Your task to perform on an android device: toggle notifications settings in the gmail app Image 0: 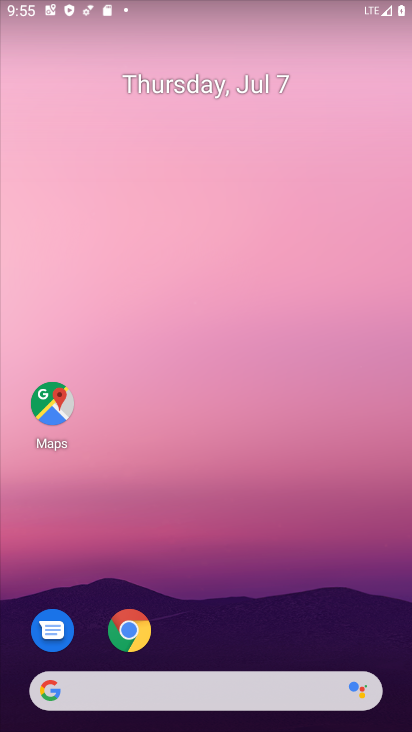
Step 0: drag from (178, 636) to (190, 186)
Your task to perform on an android device: toggle notifications settings in the gmail app Image 1: 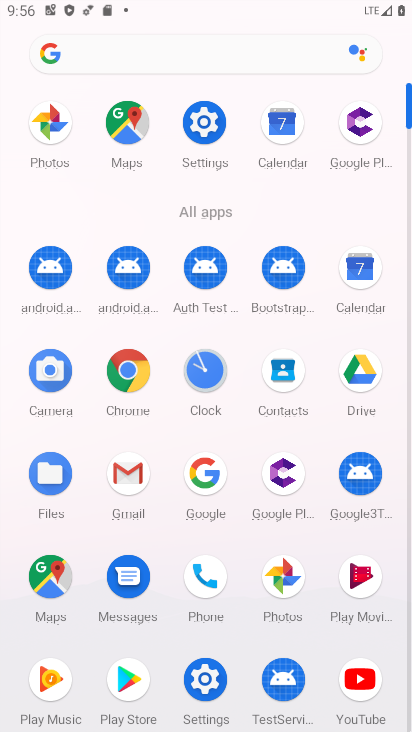
Step 1: click (119, 476)
Your task to perform on an android device: toggle notifications settings in the gmail app Image 2: 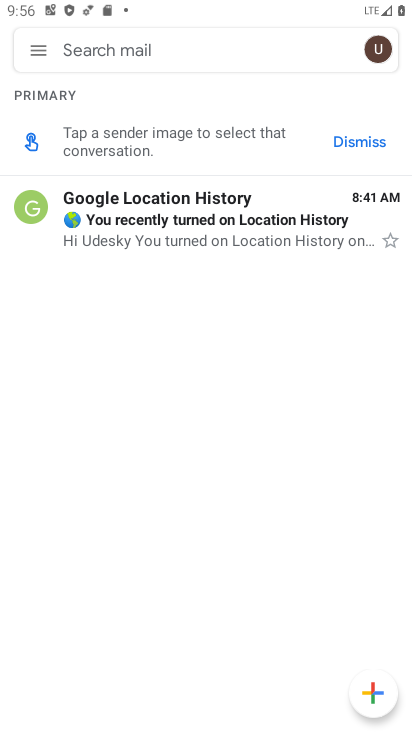
Step 2: drag from (161, 606) to (188, 263)
Your task to perform on an android device: toggle notifications settings in the gmail app Image 3: 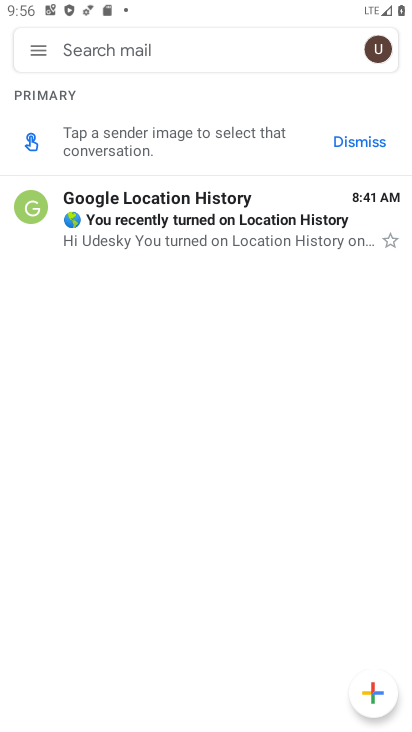
Step 3: click (41, 47)
Your task to perform on an android device: toggle notifications settings in the gmail app Image 4: 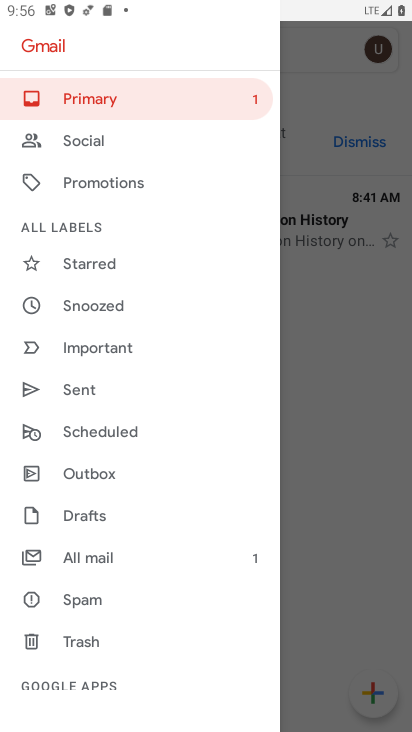
Step 4: drag from (92, 590) to (148, 173)
Your task to perform on an android device: toggle notifications settings in the gmail app Image 5: 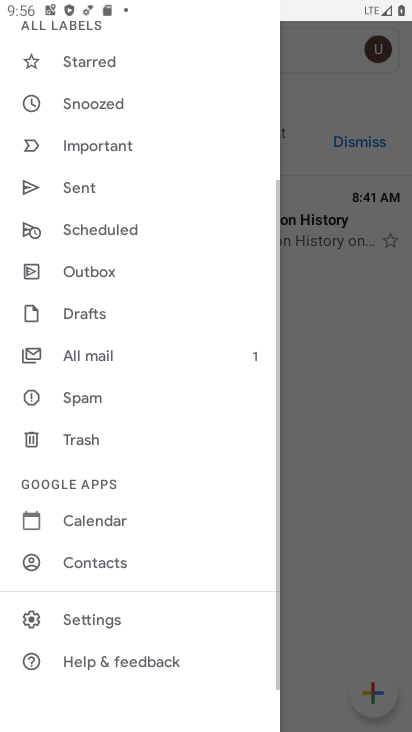
Step 5: click (93, 624)
Your task to perform on an android device: toggle notifications settings in the gmail app Image 6: 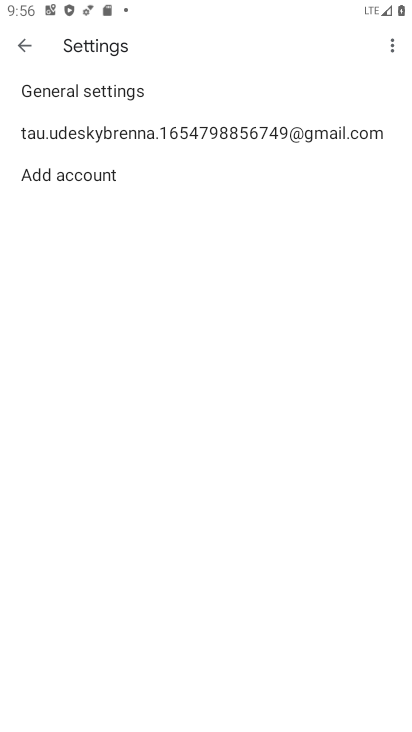
Step 6: drag from (102, 585) to (164, 165)
Your task to perform on an android device: toggle notifications settings in the gmail app Image 7: 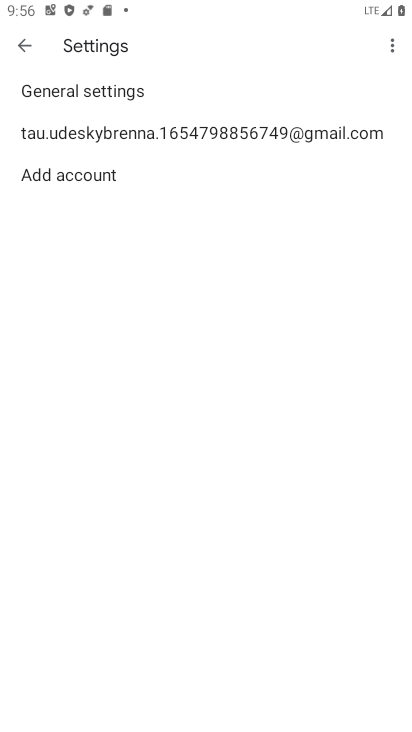
Step 7: click (182, 135)
Your task to perform on an android device: toggle notifications settings in the gmail app Image 8: 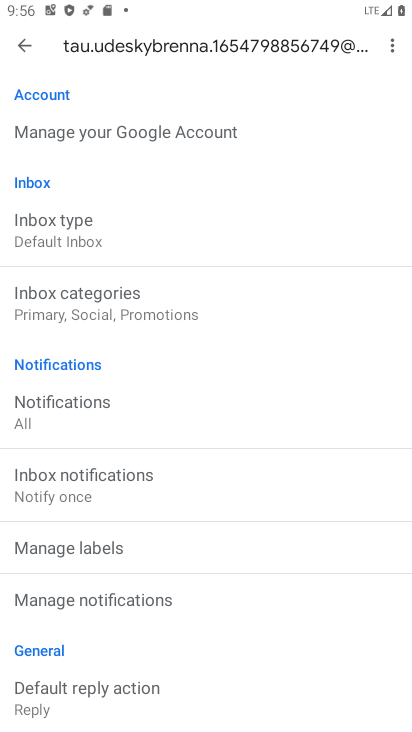
Step 8: click (94, 595)
Your task to perform on an android device: toggle notifications settings in the gmail app Image 9: 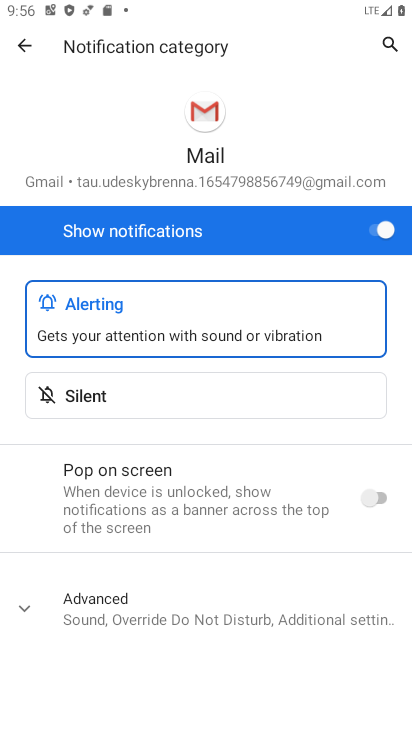
Step 9: drag from (177, 578) to (228, 136)
Your task to perform on an android device: toggle notifications settings in the gmail app Image 10: 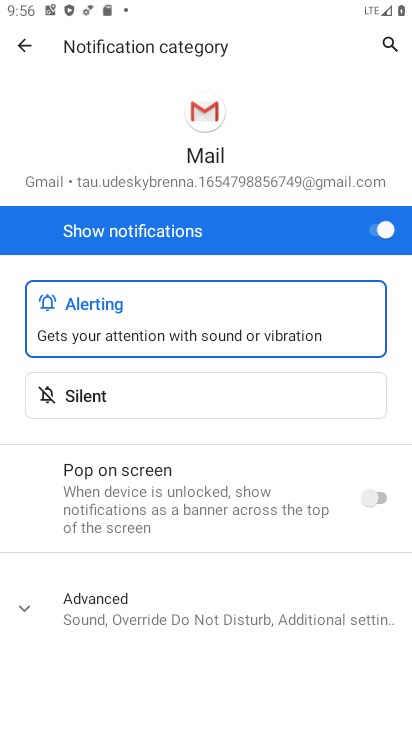
Step 10: click (130, 611)
Your task to perform on an android device: toggle notifications settings in the gmail app Image 11: 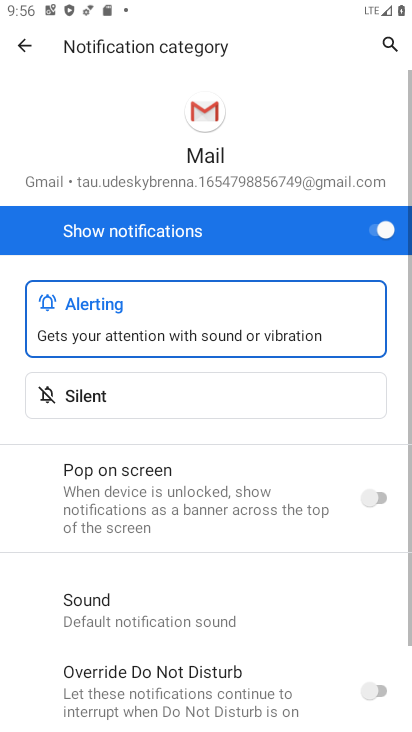
Step 11: drag from (153, 610) to (248, 165)
Your task to perform on an android device: toggle notifications settings in the gmail app Image 12: 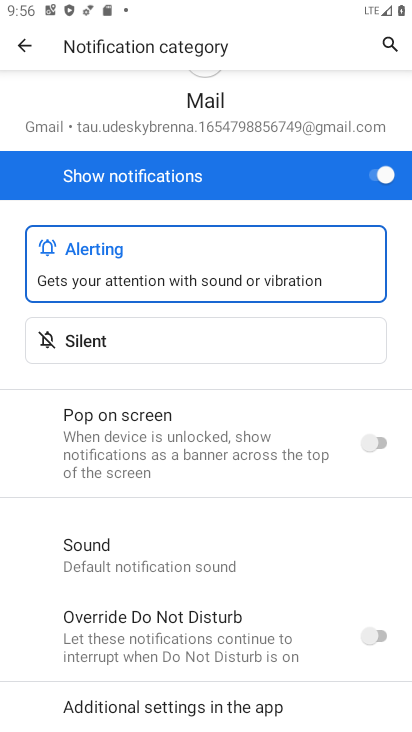
Step 12: drag from (165, 659) to (208, 261)
Your task to perform on an android device: toggle notifications settings in the gmail app Image 13: 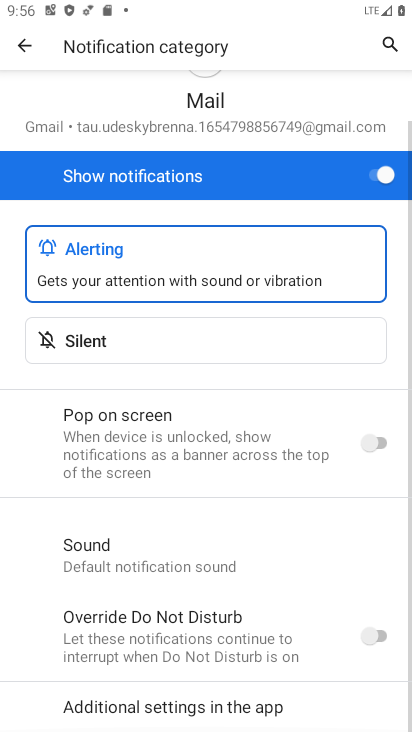
Step 13: drag from (250, 231) to (297, 676)
Your task to perform on an android device: toggle notifications settings in the gmail app Image 14: 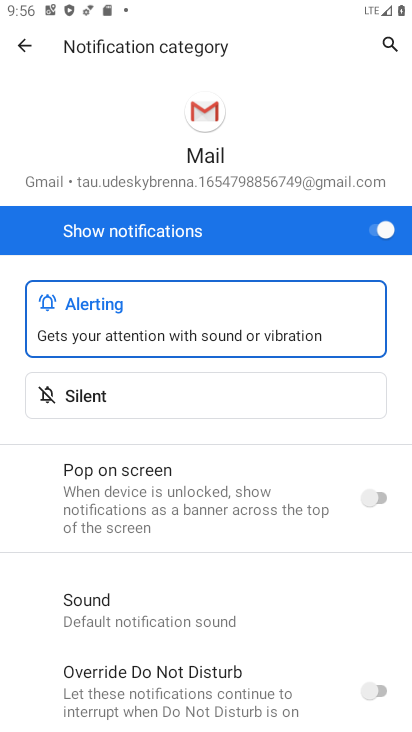
Step 14: click (363, 229)
Your task to perform on an android device: toggle notifications settings in the gmail app Image 15: 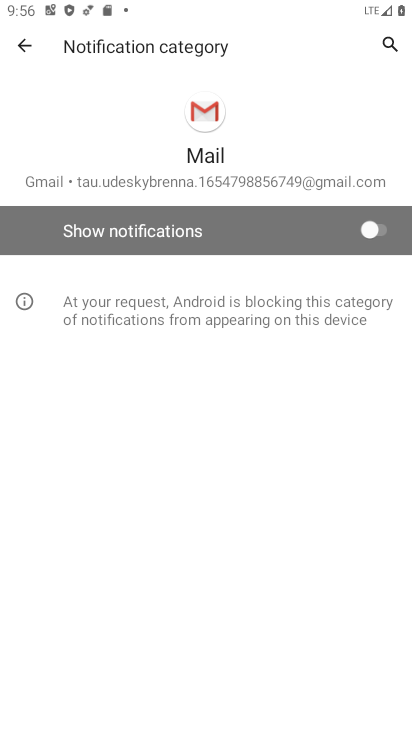
Step 15: task complete